Your task to perform on an android device: Open Yahoo.com Image 0: 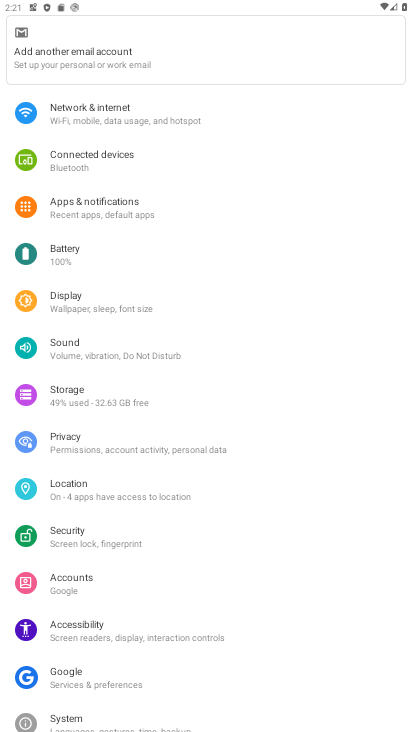
Step 0: press back button
Your task to perform on an android device: Open Yahoo.com Image 1: 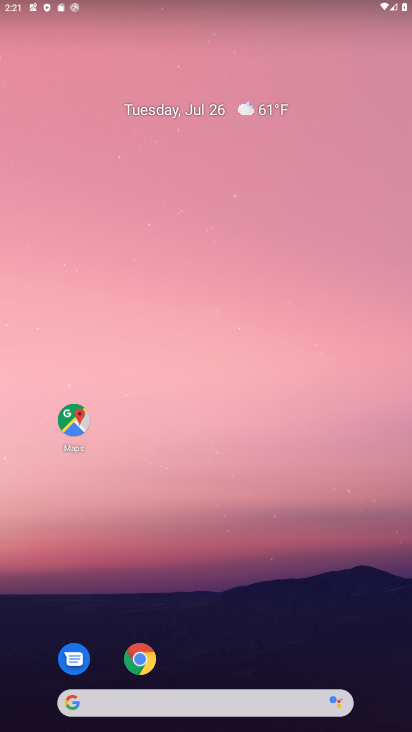
Step 1: click (144, 666)
Your task to perform on an android device: Open Yahoo.com Image 2: 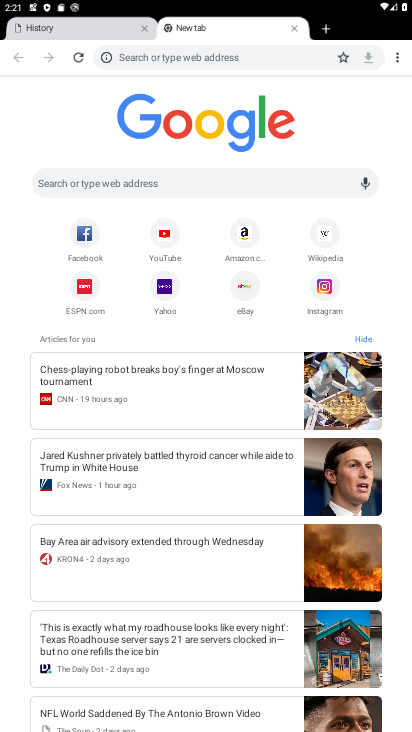
Step 2: click (162, 291)
Your task to perform on an android device: Open Yahoo.com Image 3: 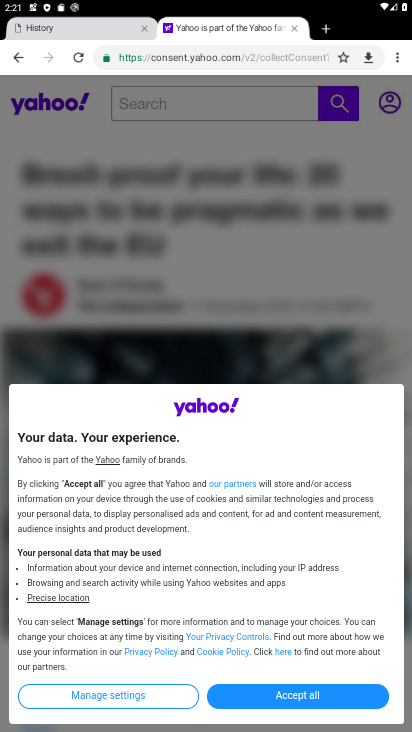
Step 3: task complete